Your task to perform on an android device: turn pop-ups on in chrome Image 0: 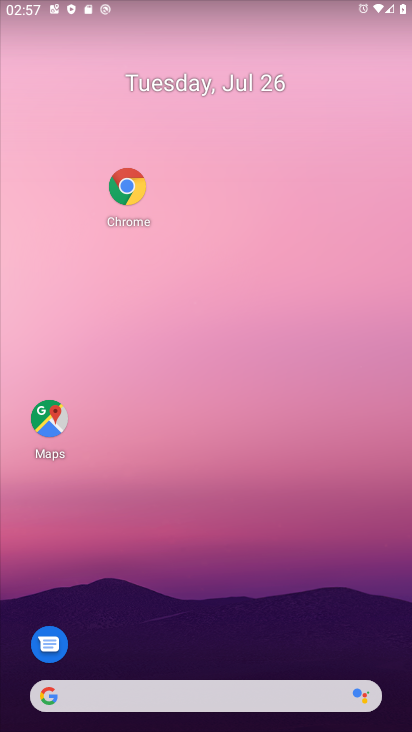
Step 0: drag from (172, 654) to (186, 239)
Your task to perform on an android device: turn pop-ups on in chrome Image 1: 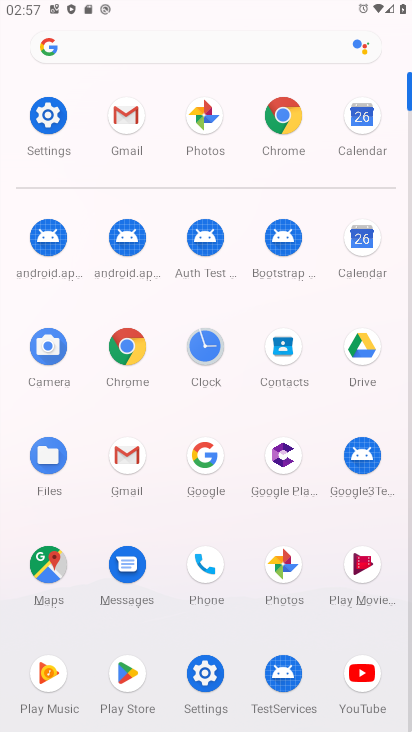
Step 1: click (284, 119)
Your task to perform on an android device: turn pop-ups on in chrome Image 2: 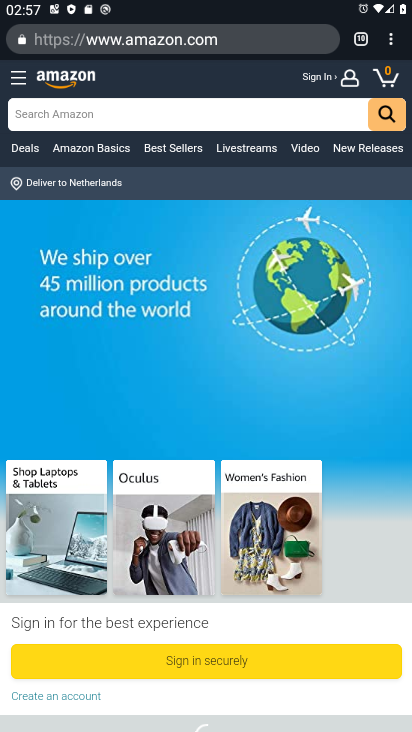
Step 2: click (390, 37)
Your task to perform on an android device: turn pop-ups on in chrome Image 3: 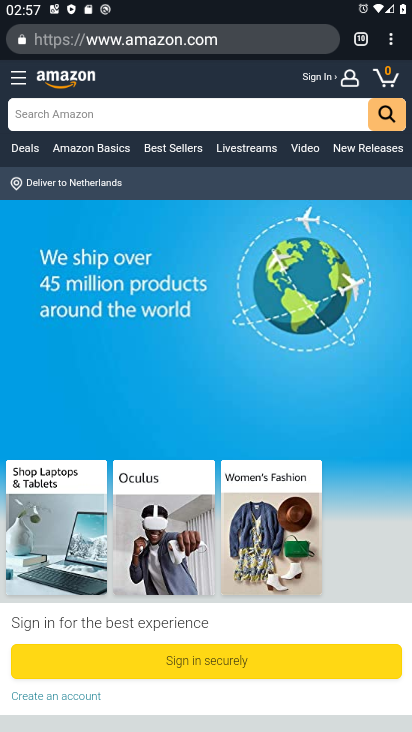
Step 3: click (404, 34)
Your task to perform on an android device: turn pop-ups on in chrome Image 4: 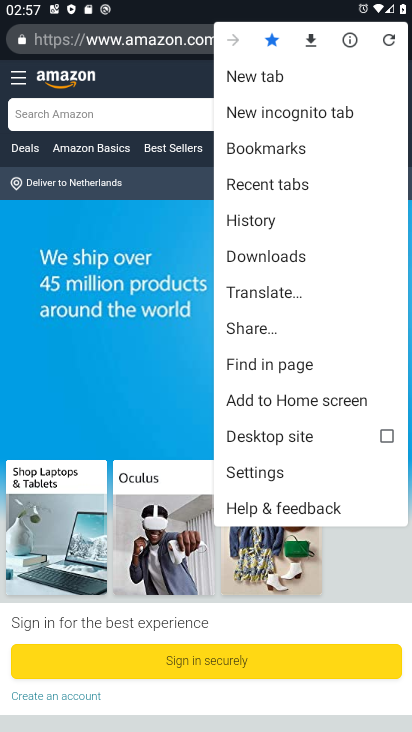
Step 4: click (276, 467)
Your task to perform on an android device: turn pop-ups on in chrome Image 5: 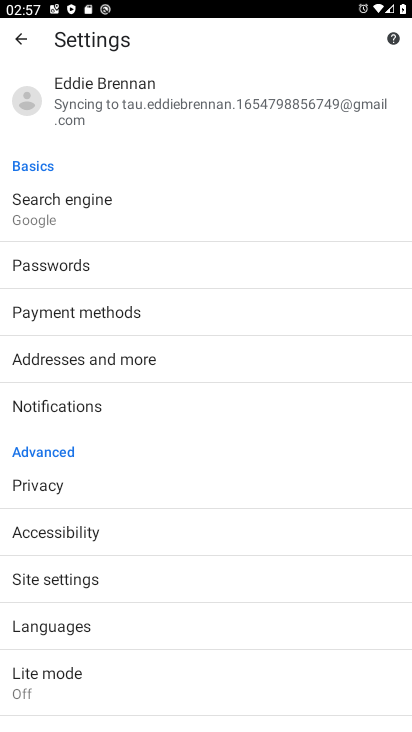
Step 5: click (80, 582)
Your task to perform on an android device: turn pop-ups on in chrome Image 6: 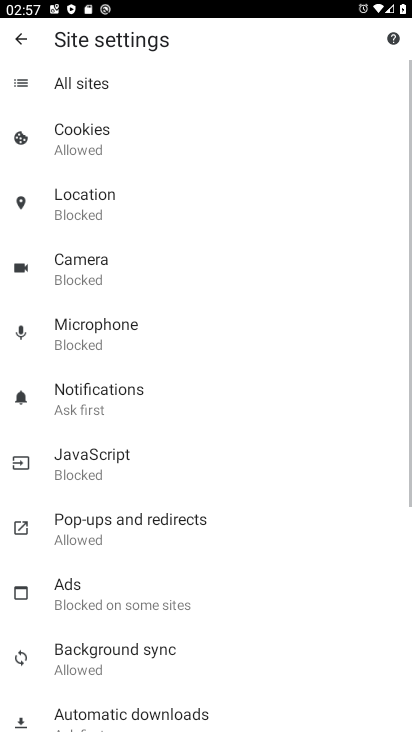
Step 6: click (107, 529)
Your task to perform on an android device: turn pop-ups on in chrome Image 7: 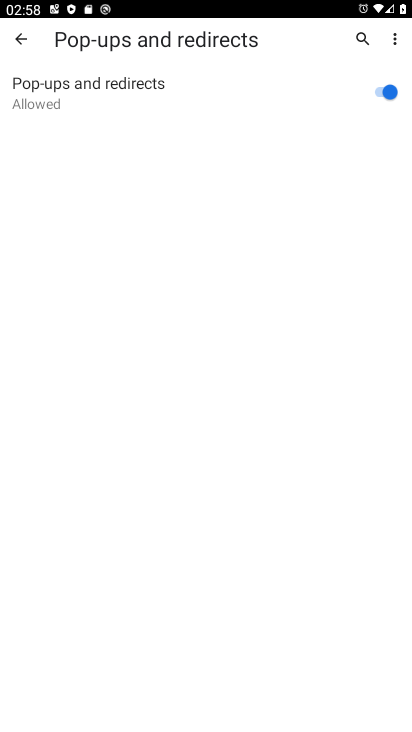
Step 7: task complete